Your task to perform on an android device: see creations saved in the google photos Image 0: 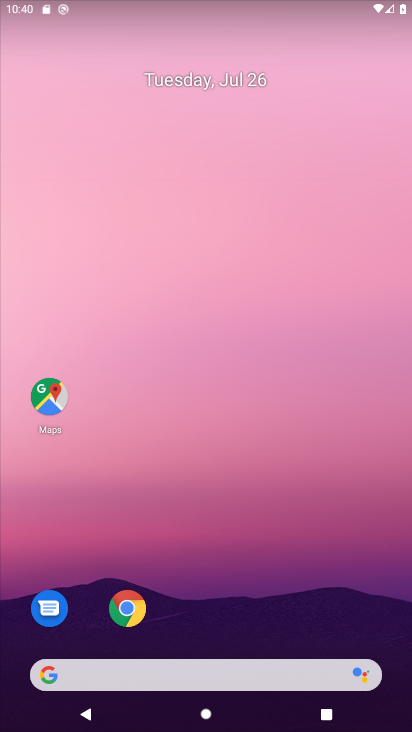
Step 0: drag from (338, 599) to (255, 70)
Your task to perform on an android device: see creations saved in the google photos Image 1: 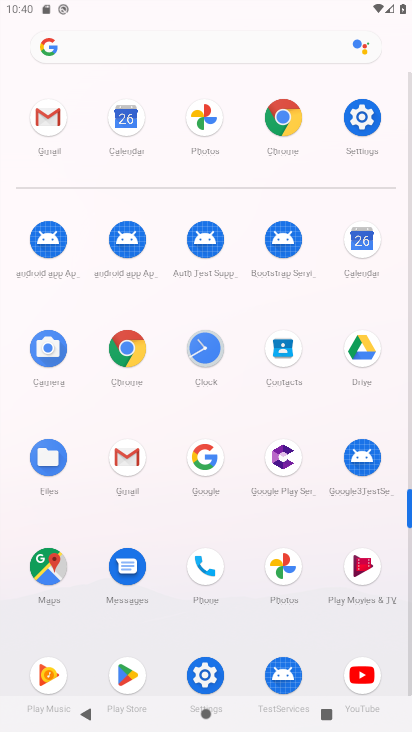
Step 1: click (286, 573)
Your task to perform on an android device: see creations saved in the google photos Image 2: 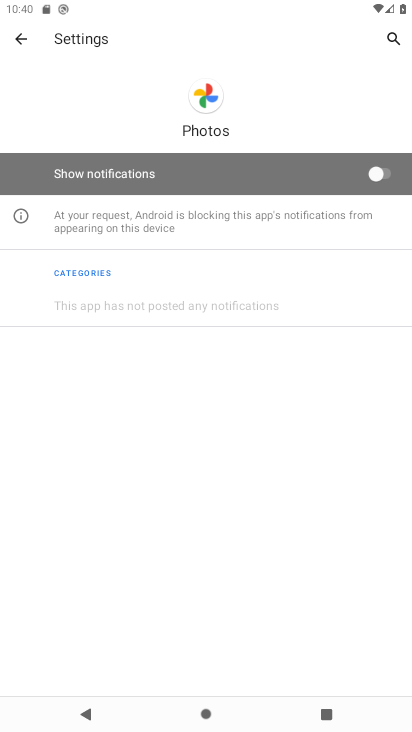
Step 2: click (27, 46)
Your task to perform on an android device: see creations saved in the google photos Image 3: 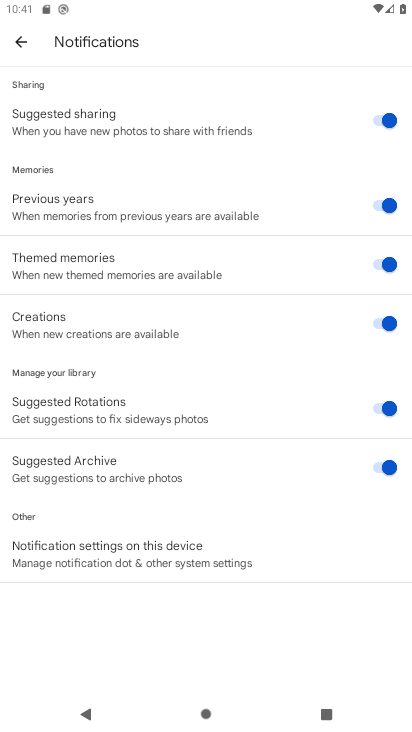
Step 3: click (35, 40)
Your task to perform on an android device: see creations saved in the google photos Image 4: 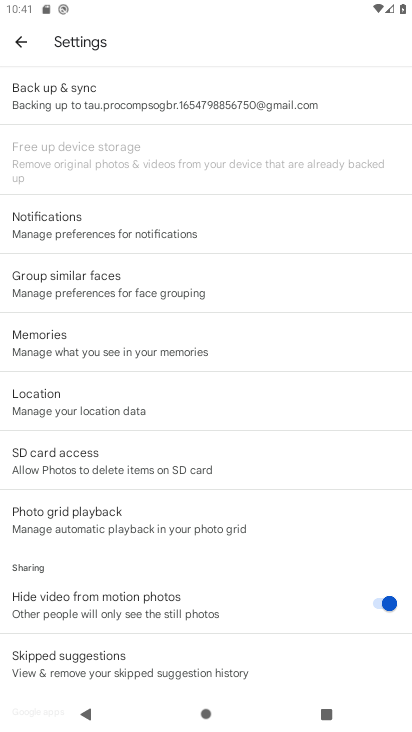
Step 4: click (30, 40)
Your task to perform on an android device: see creations saved in the google photos Image 5: 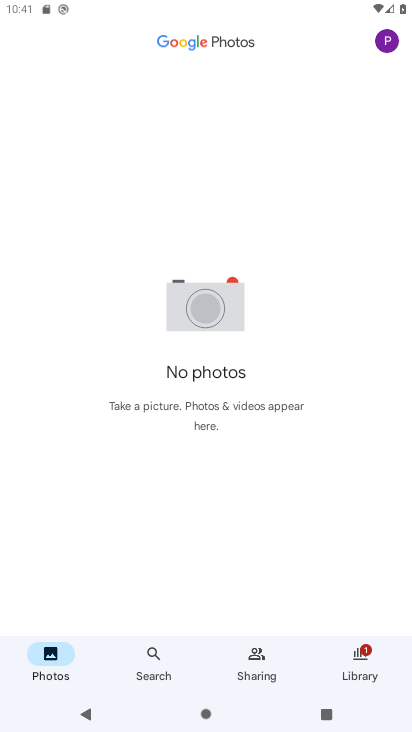
Step 5: click (368, 658)
Your task to perform on an android device: see creations saved in the google photos Image 6: 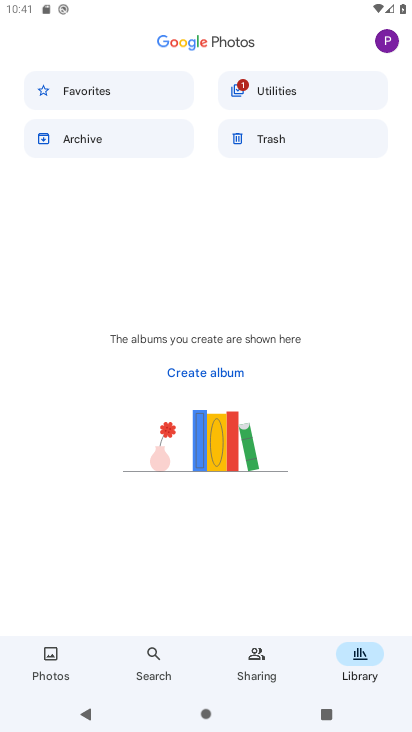
Step 6: task complete